Your task to perform on an android device: refresh tabs in the chrome app Image 0: 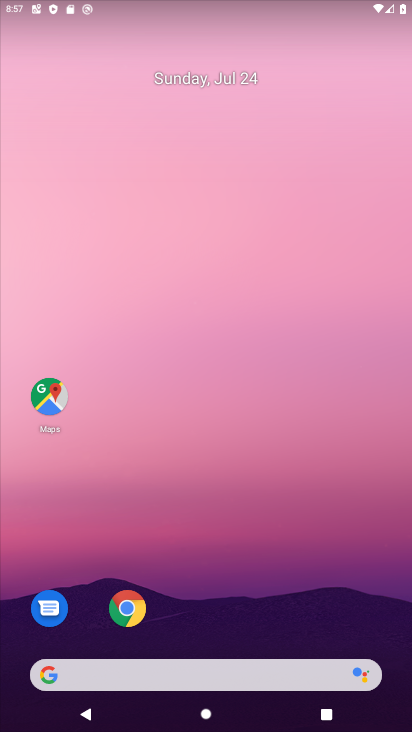
Step 0: click (115, 611)
Your task to perform on an android device: refresh tabs in the chrome app Image 1: 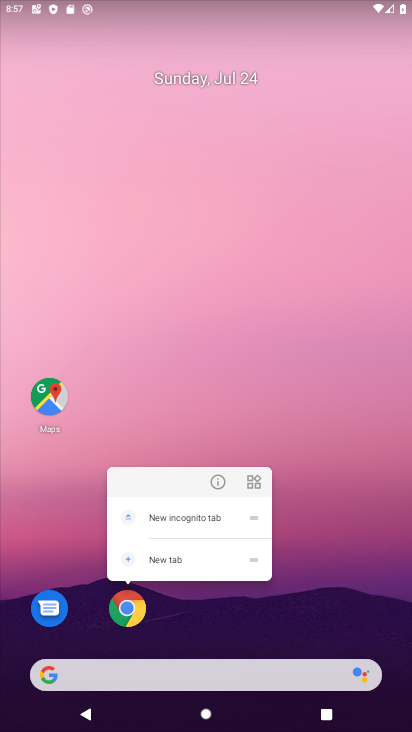
Step 1: click (139, 601)
Your task to perform on an android device: refresh tabs in the chrome app Image 2: 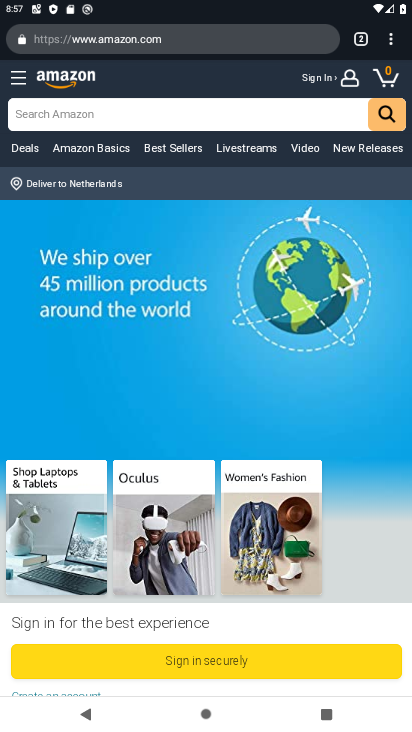
Step 2: click (388, 39)
Your task to perform on an android device: refresh tabs in the chrome app Image 3: 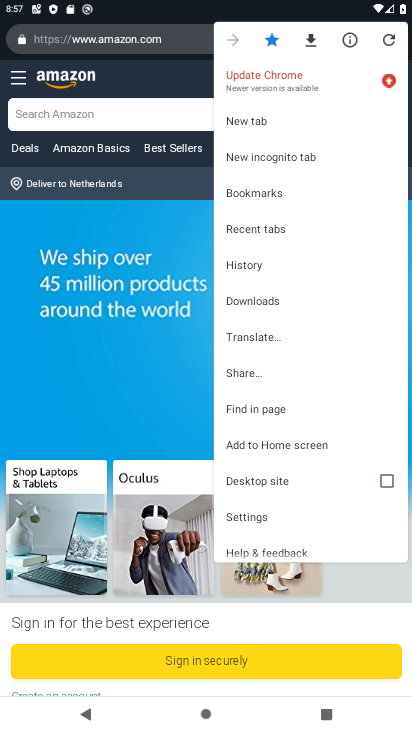
Step 3: click (393, 32)
Your task to perform on an android device: refresh tabs in the chrome app Image 4: 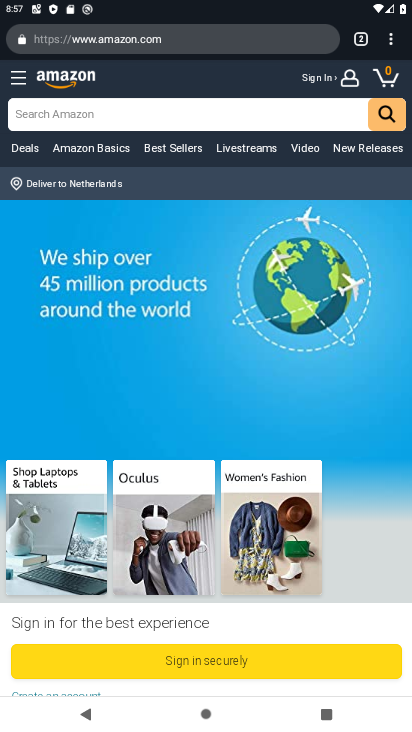
Step 4: task complete